Your task to perform on an android device: Turn on the flashlight Image 0: 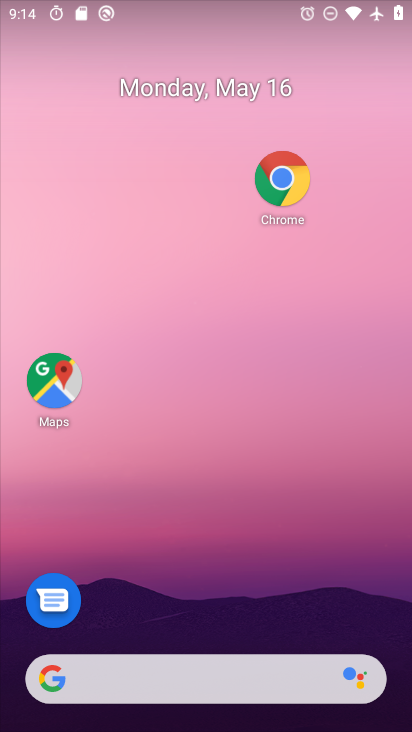
Step 0: press home button
Your task to perform on an android device: Turn on the flashlight Image 1: 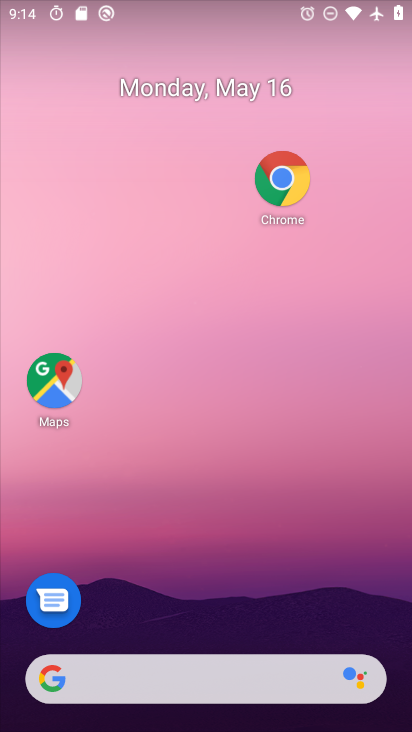
Step 1: task complete